Your task to perform on an android device: see tabs open on other devices in the chrome app Image 0: 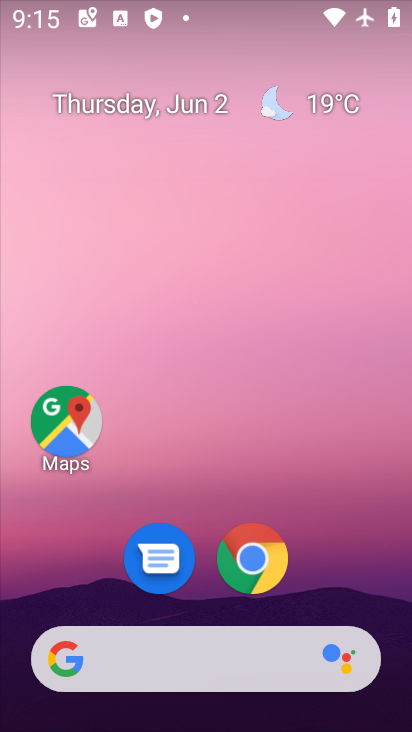
Step 0: click (254, 563)
Your task to perform on an android device: see tabs open on other devices in the chrome app Image 1: 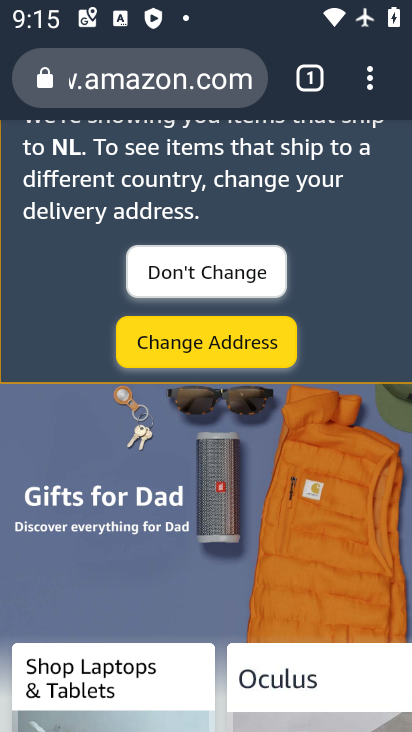
Step 1: click (369, 78)
Your task to perform on an android device: see tabs open on other devices in the chrome app Image 2: 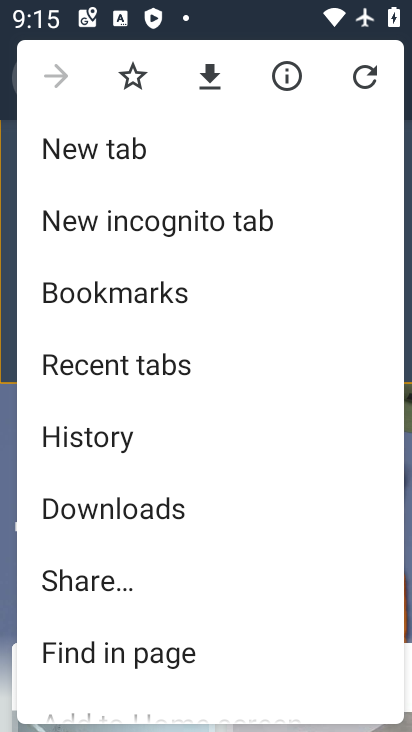
Step 2: click (84, 358)
Your task to perform on an android device: see tabs open on other devices in the chrome app Image 3: 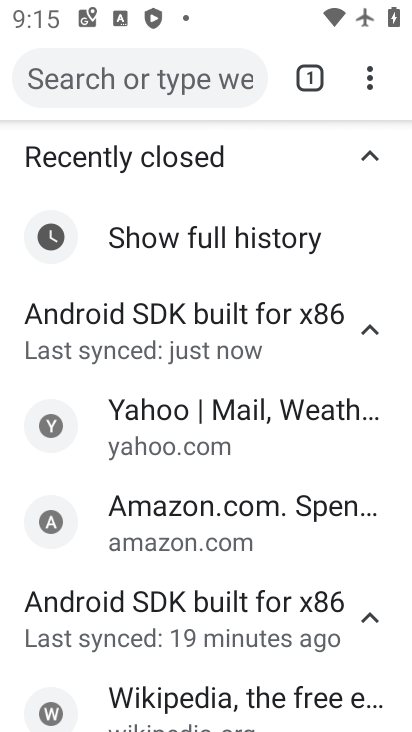
Step 3: task complete